Your task to perform on an android device: turn on sleep mode Image 0: 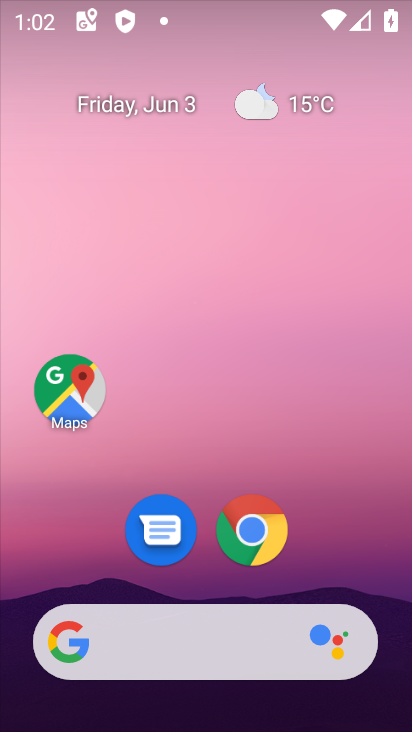
Step 0: drag from (280, 0) to (245, 731)
Your task to perform on an android device: turn on sleep mode Image 1: 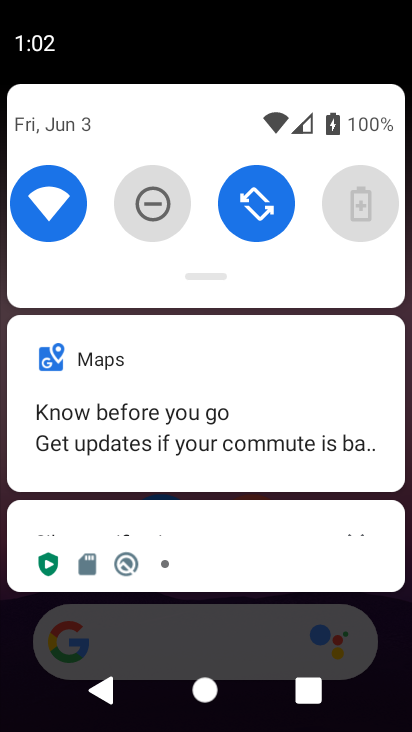
Step 1: press home button
Your task to perform on an android device: turn on sleep mode Image 2: 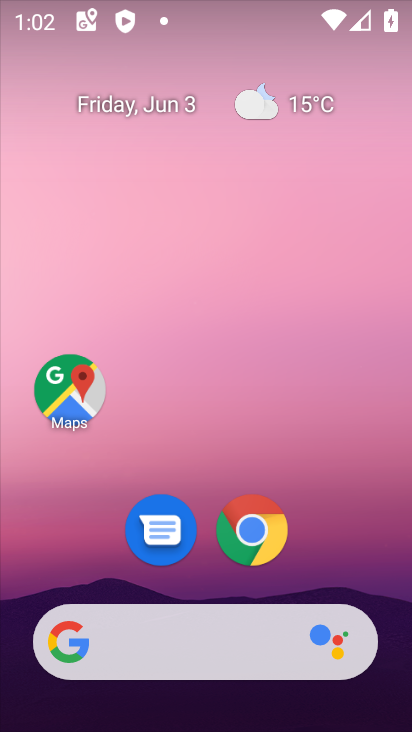
Step 2: drag from (365, 508) to (337, 100)
Your task to perform on an android device: turn on sleep mode Image 3: 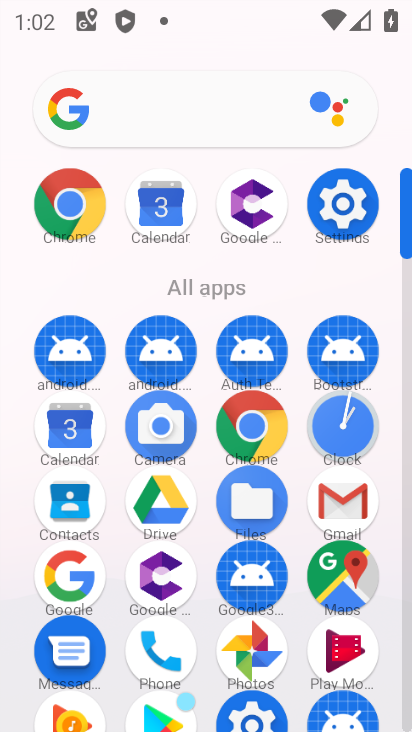
Step 3: drag from (317, 391) to (315, 191)
Your task to perform on an android device: turn on sleep mode Image 4: 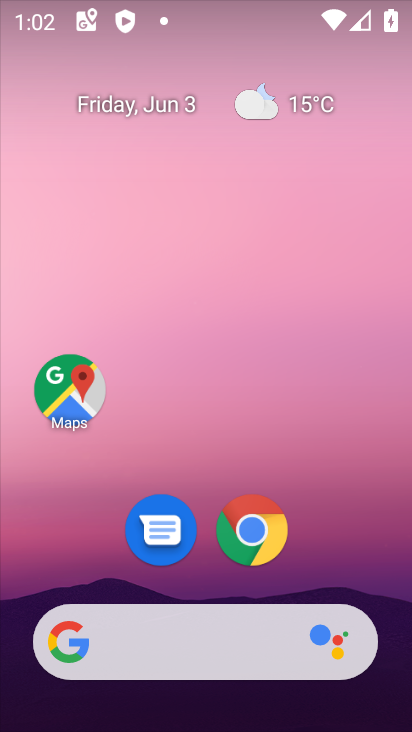
Step 4: drag from (364, 470) to (374, 40)
Your task to perform on an android device: turn on sleep mode Image 5: 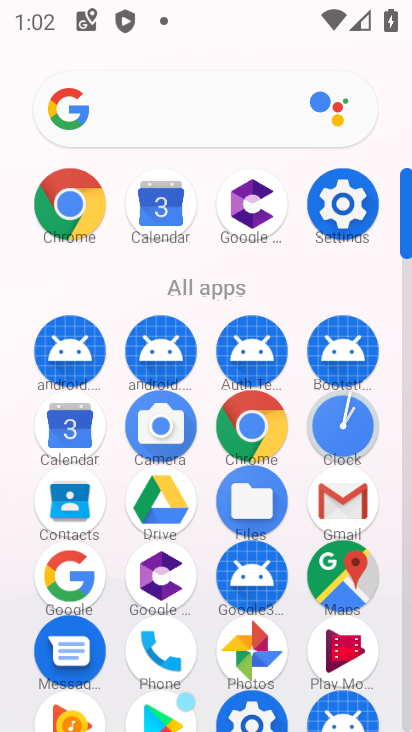
Step 5: click (356, 197)
Your task to perform on an android device: turn on sleep mode Image 6: 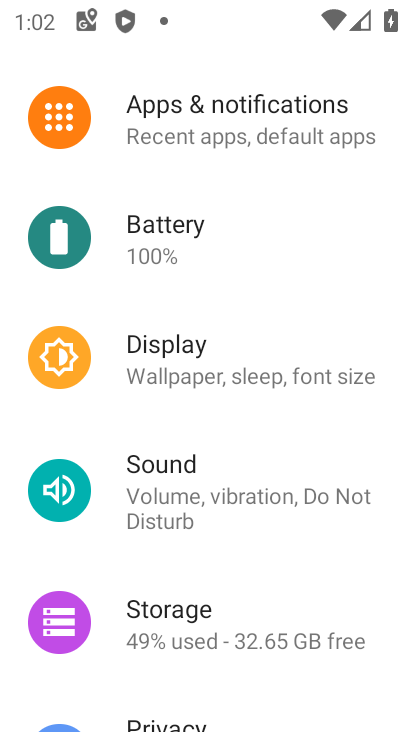
Step 6: click (234, 351)
Your task to perform on an android device: turn on sleep mode Image 7: 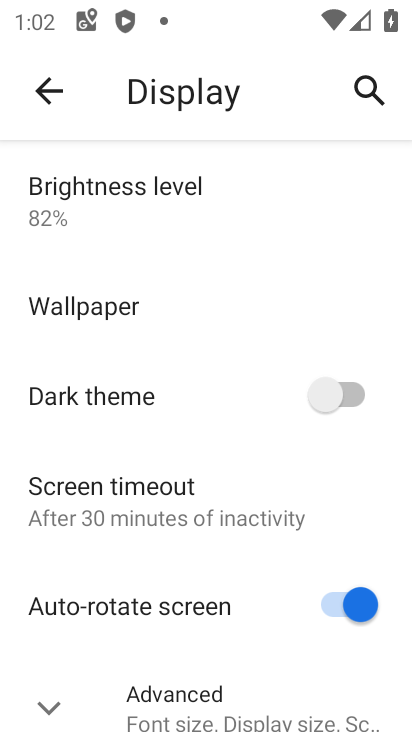
Step 7: click (54, 706)
Your task to perform on an android device: turn on sleep mode Image 8: 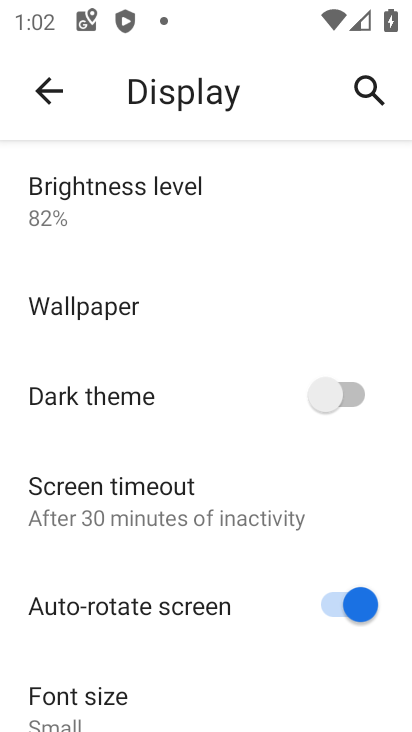
Step 8: task complete